Your task to perform on an android device: Open Google Maps and go to "Timeline" Image 0: 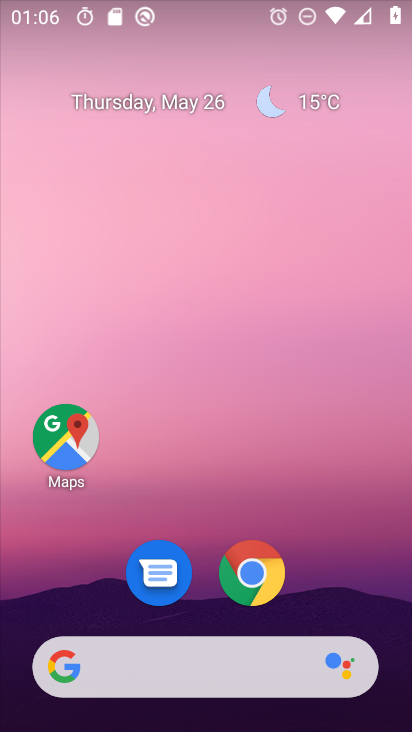
Step 0: click (57, 423)
Your task to perform on an android device: Open Google Maps and go to "Timeline" Image 1: 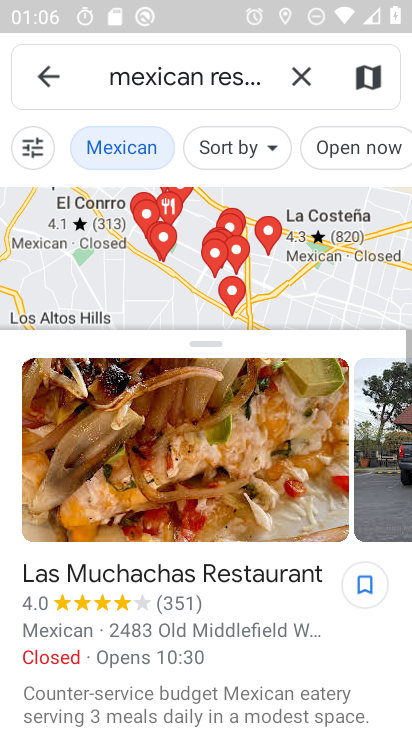
Step 1: click (290, 86)
Your task to perform on an android device: Open Google Maps and go to "Timeline" Image 2: 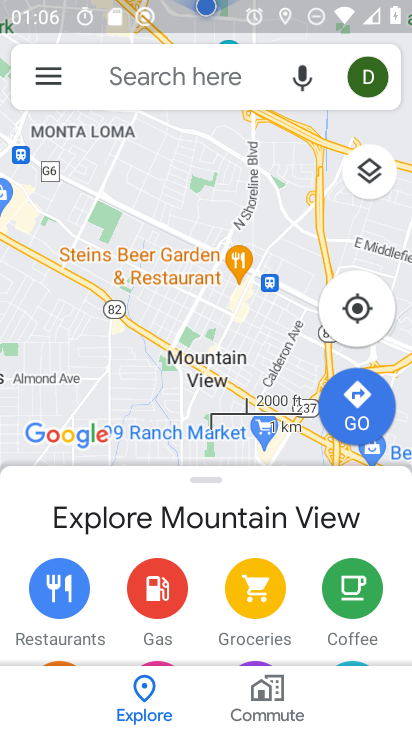
Step 2: click (55, 79)
Your task to perform on an android device: Open Google Maps and go to "Timeline" Image 3: 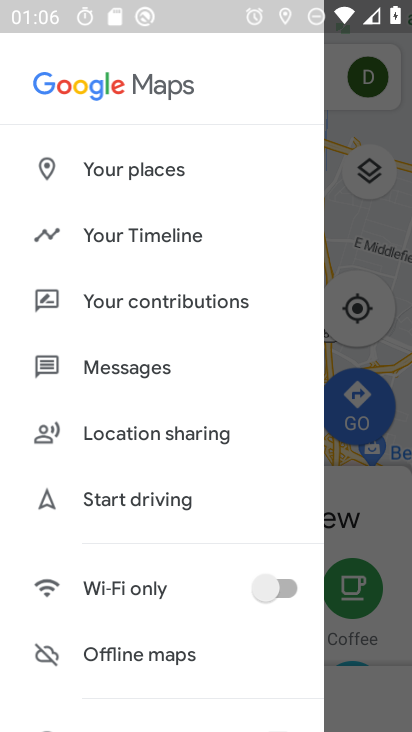
Step 3: click (105, 231)
Your task to perform on an android device: Open Google Maps and go to "Timeline" Image 4: 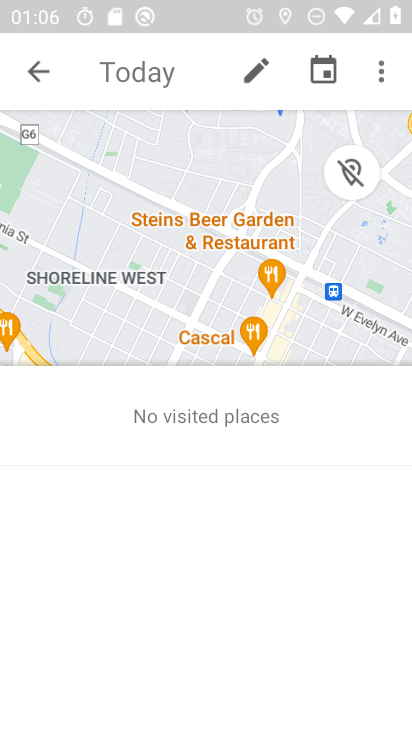
Step 4: task complete